Your task to perform on an android device: turn off location Image 0: 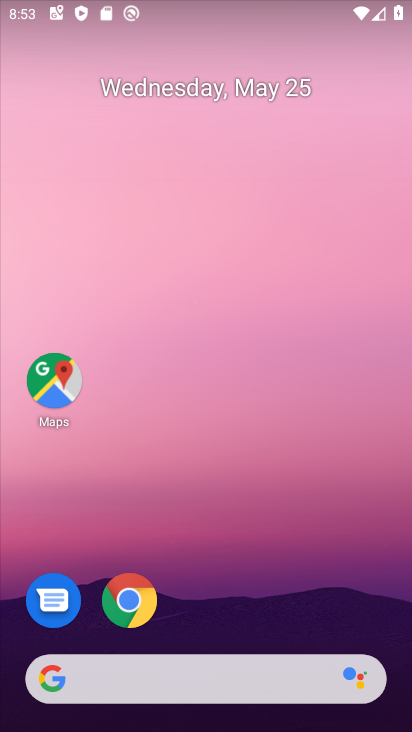
Step 0: drag from (250, 530) to (256, 29)
Your task to perform on an android device: turn off location Image 1: 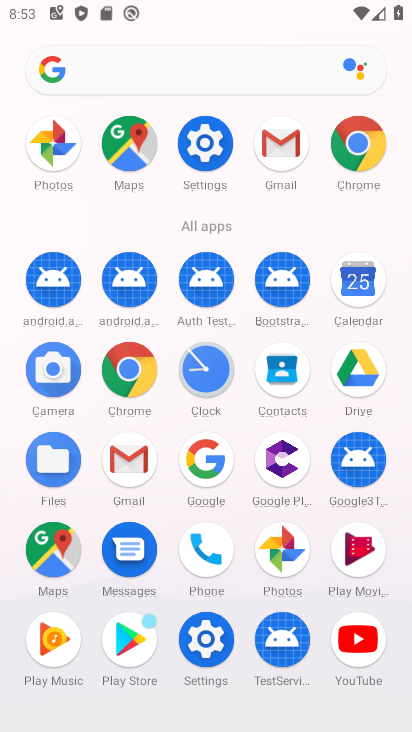
Step 1: drag from (7, 583) to (19, 276)
Your task to perform on an android device: turn off location Image 2: 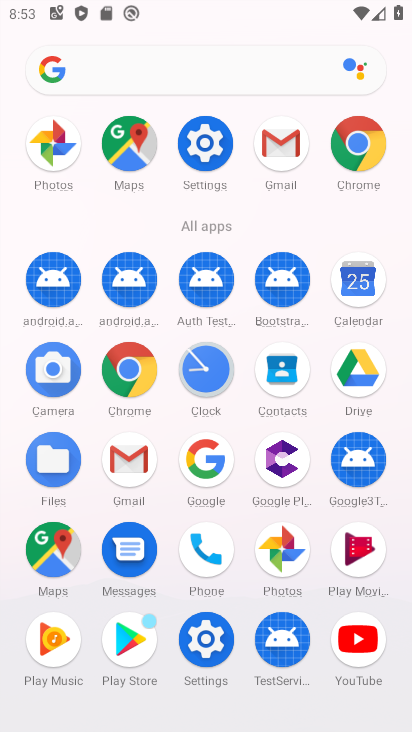
Step 2: click (204, 634)
Your task to perform on an android device: turn off location Image 3: 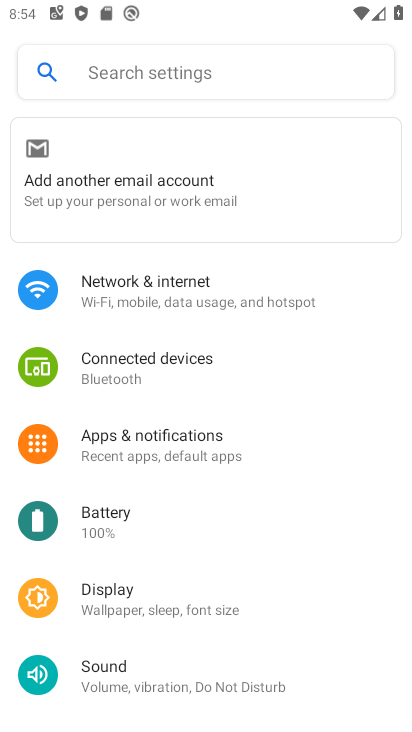
Step 3: drag from (307, 592) to (298, 278)
Your task to perform on an android device: turn off location Image 4: 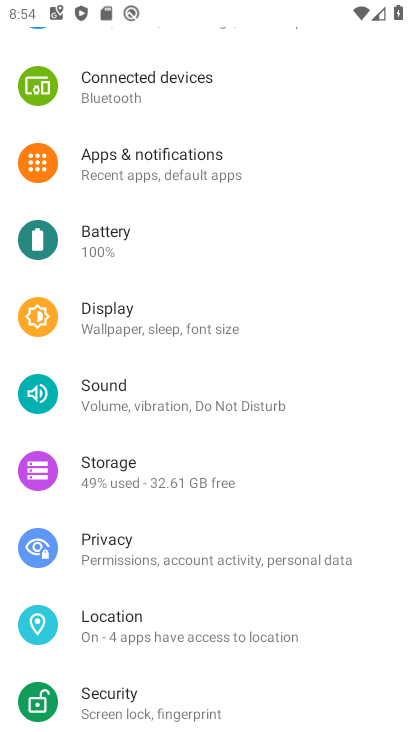
Step 4: click (202, 624)
Your task to perform on an android device: turn off location Image 5: 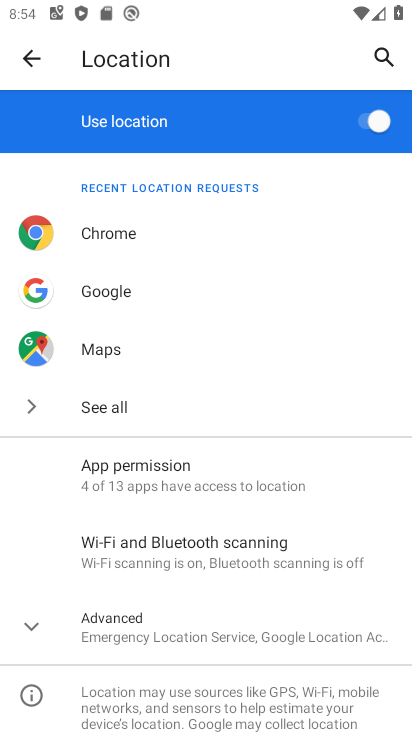
Step 5: click (350, 122)
Your task to perform on an android device: turn off location Image 6: 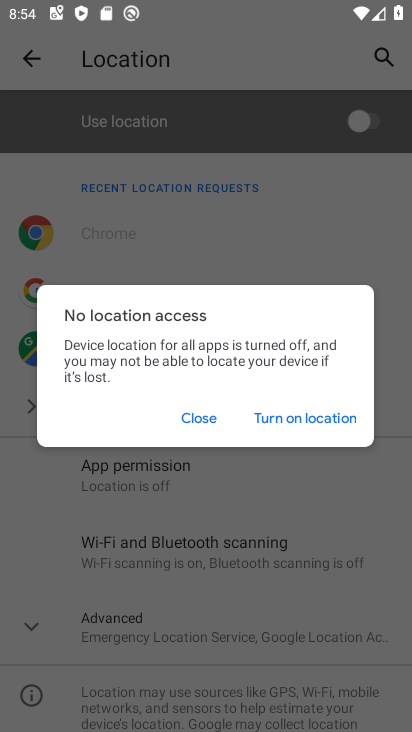
Step 6: click (192, 414)
Your task to perform on an android device: turn off location Image 7: 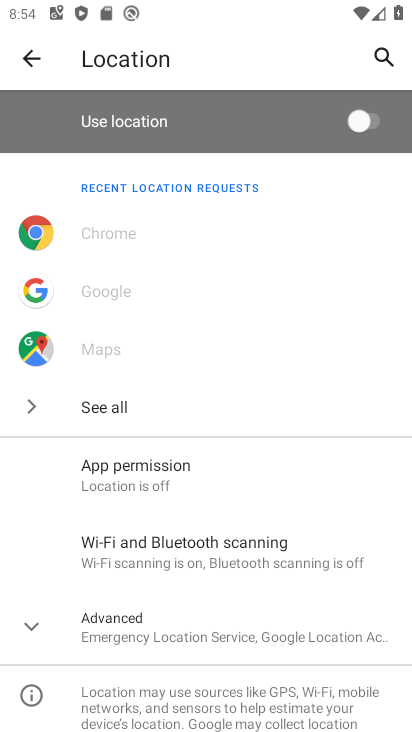
Step 7: task complete